Your task to perform on an android device: open a bookmark in the chrome app Image 0: 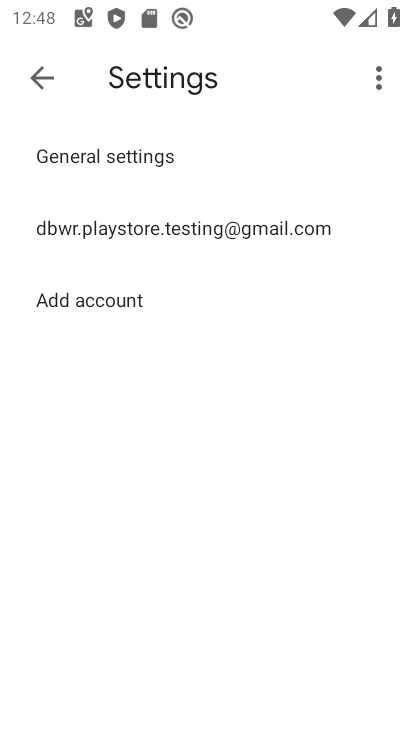
Step 0: press back button
Your task to perform on an android device: open a bookmark in the chrome app Image 1: 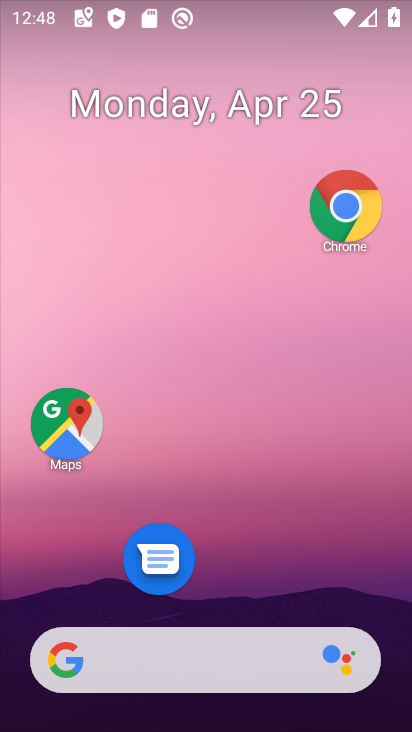
Step 1: click (357, 200)
Your task to perform on an android device: open a bookmark in the chrome app Image 2: 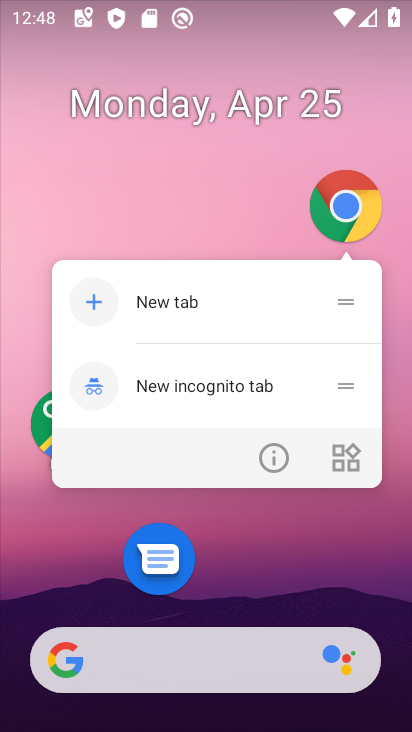
Step 2: click (348, 216)
Your task to perform on an android device: open a bookmark in the chrome app Image 3: 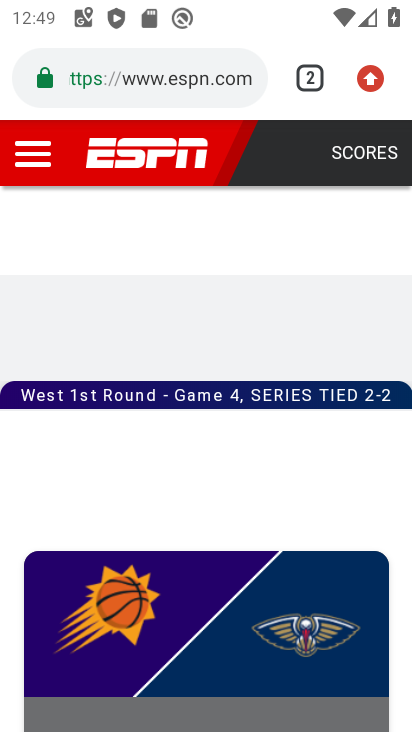
Step 3: click (372, 75)
Your task to perform on an android device: open a bookmark in the chrome app Image 4: 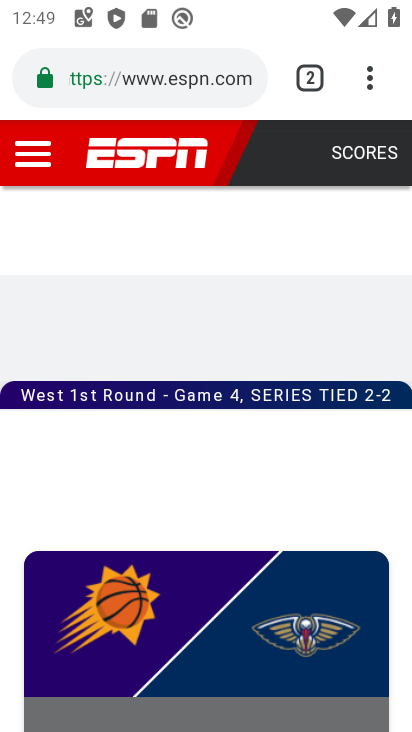
Step 4: task complete